Your task to perform on an android device: Show me productivity apps on the Play Store Image 0: 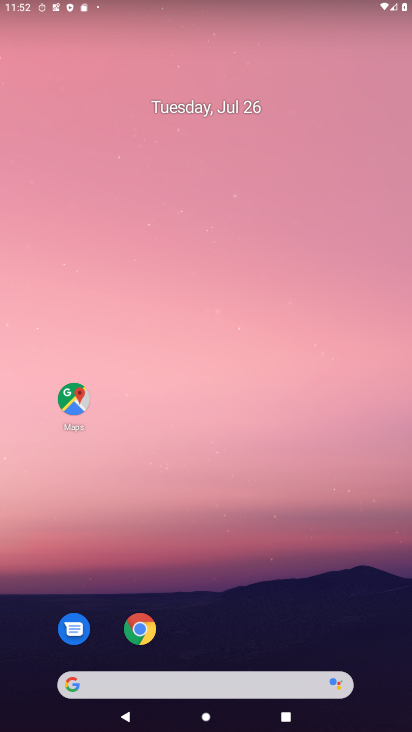
Step 0: drag from (321, 499) to (189, 104)
Your task to perform on an android device: Show me productivity apps on the Play Store Image 1: 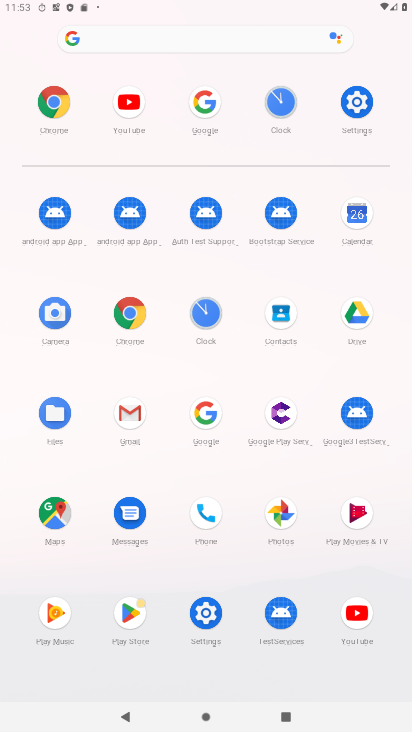
Step 1: click (136, 604)
Your task to perform on an android device: Show me productivity apps on the Play Store Image 2: 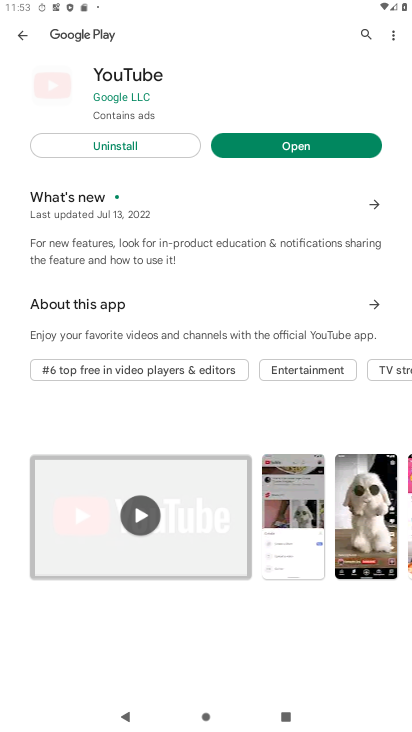
Step 2: task complete